Your task to perform on an android device: Go to battery settings Image 0: 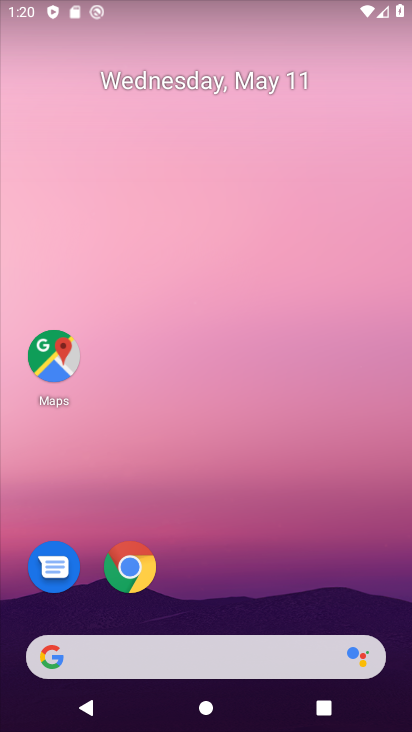
Step 0: drag from (217, 625) to (143, 2)
Your task to perform on an android device: Go to battery settings Image 1: 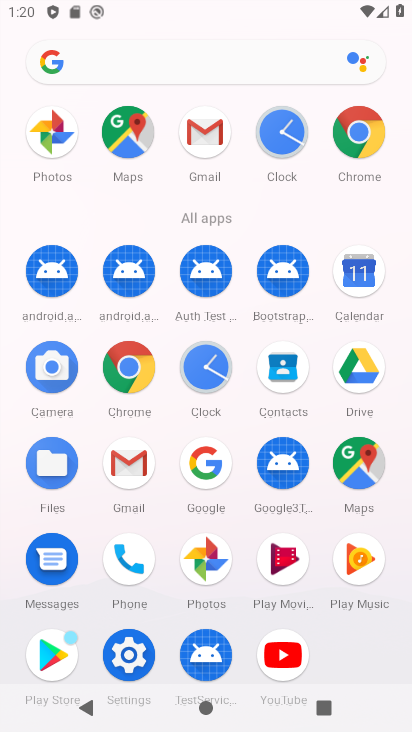
Step 1: click (135, 643)
Your task to perform on an android device: Go to battery settings Image 2: 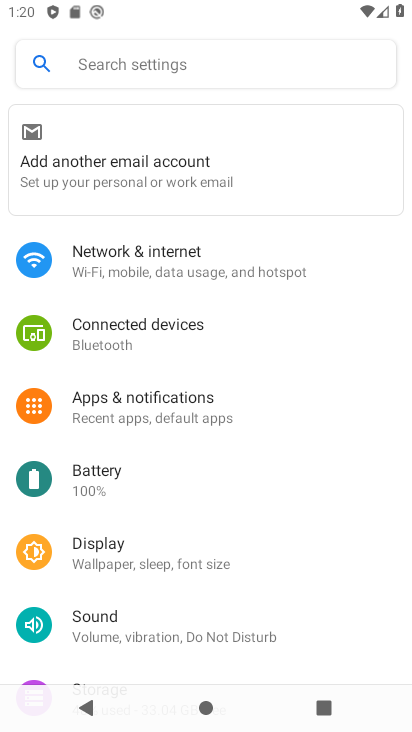
Step 2: click (96, 473)
Your task to perform on an android device: Go to battery settings Image 3: 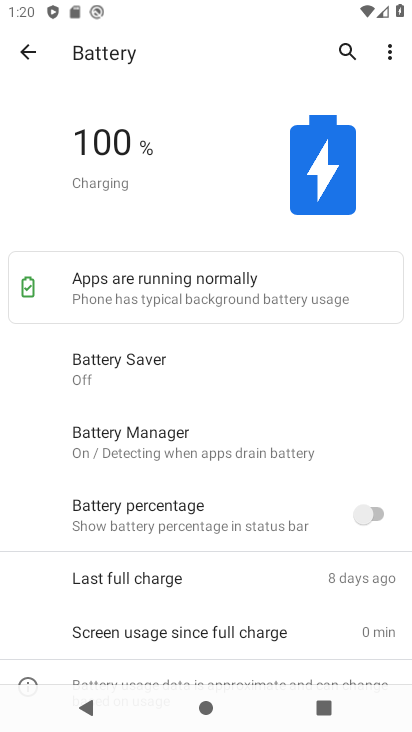
Step 3: task complete